Your task to perform on an android device: Open calendar and show me the third week of next month Image 0: 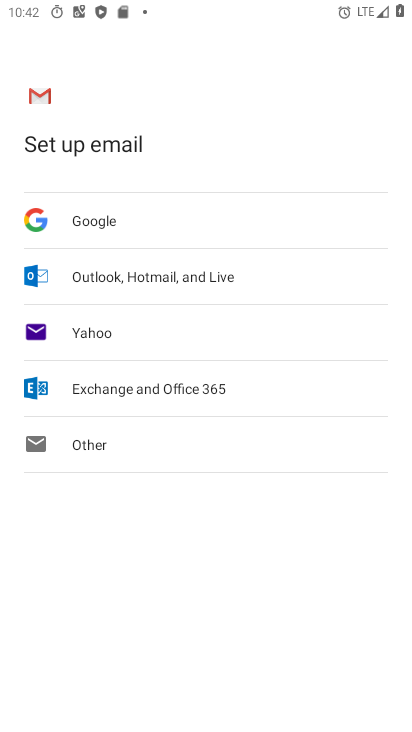
Step 0: press home button
Your task to perform on an android device: Open calendar and show me the third week of next month Image 1: 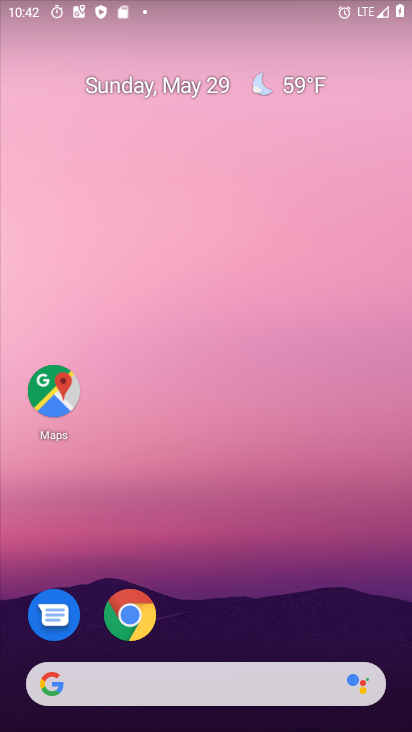
Step 1: drag from (255, 587) to (278, 67)
Your task to perform on an android device: Open calendar and show me the third week of next month Image 2: 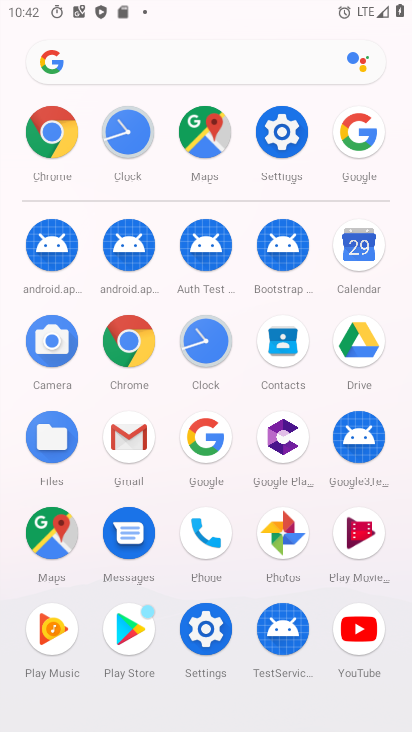
Step 2: click (363, 251)
Your task to perform on an android device: Open calendar and show me the third week of next month Image 3: 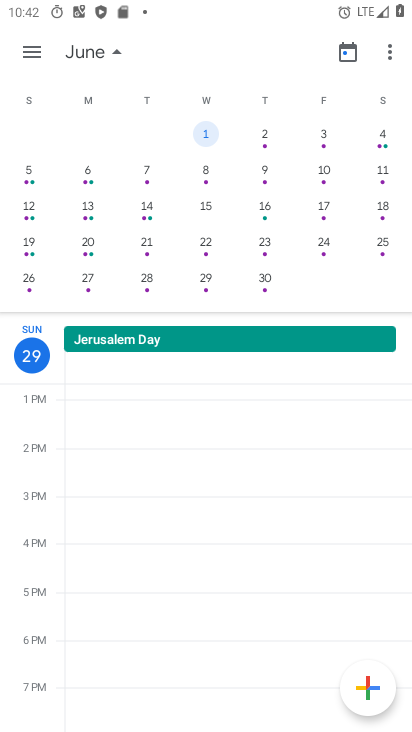
Step 3: click (209, 209)
Your task to perform on an android device: Open calendar and show me the third week of next month Image 4: 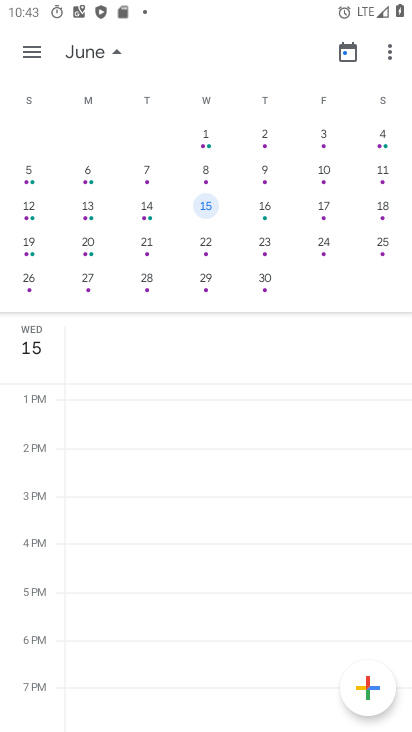
Step 4: task complete